Your task to perform on an android device: change the clock style Image 0: 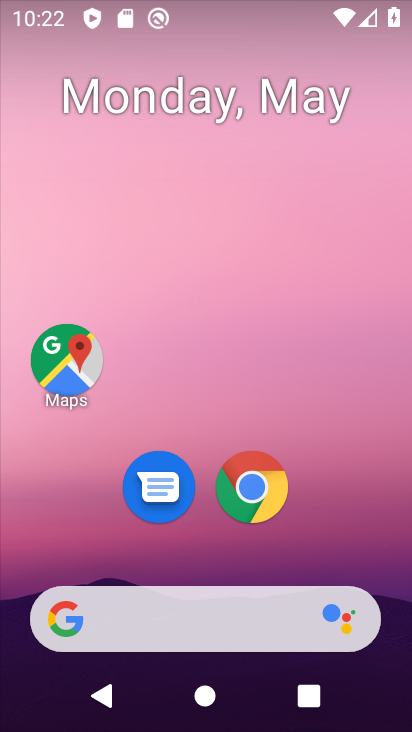
Step 0: drag from (399, 578) to (394, 256)
Your task to perform on an android device: change the clock style Image 1: 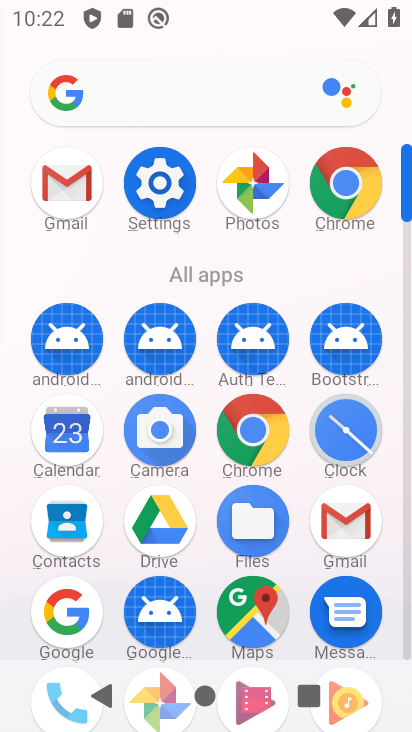
Step 1: click (362, 450)
Your task to perform on an android device: change the clock style Image 2: 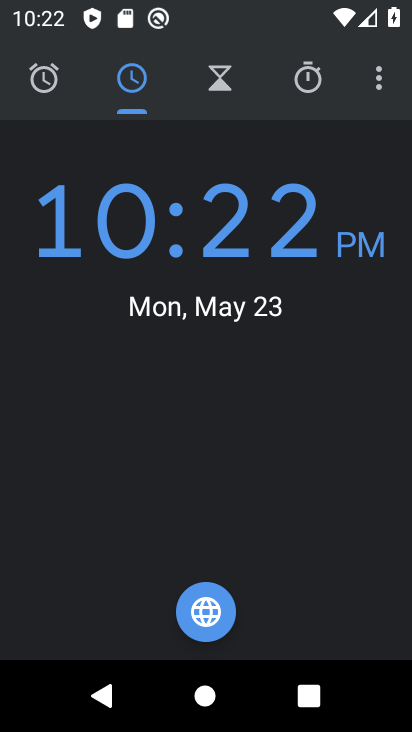
Step 2: click (384, 92)
Your task to perform on an android device: change the clock style Image 3: 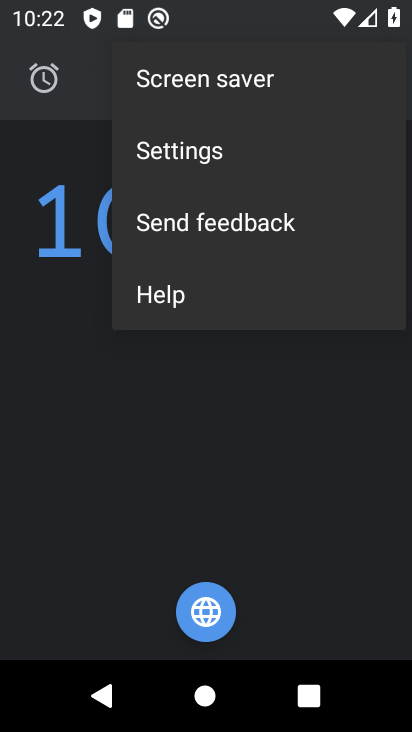
Step 3: click (189, 162)
Your task to perform on an android device: change the clock style Image 4: 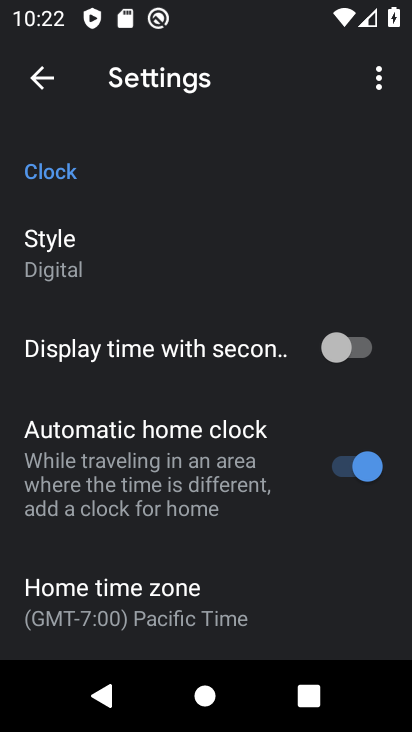
Step 4: drag from (293, 493) to (295, 387)
Your task to perform on an android device: change the clock style Image 5: 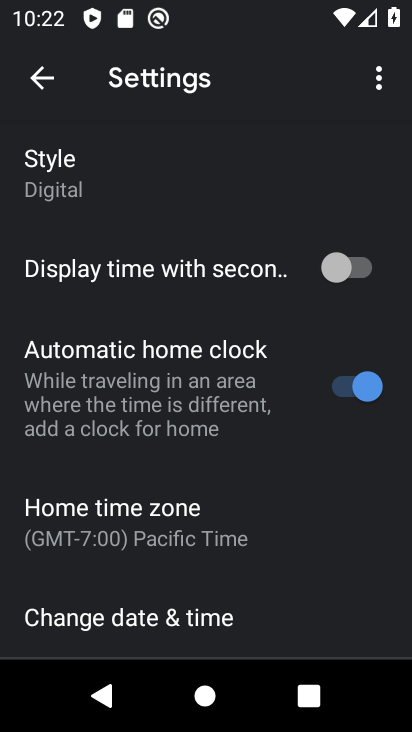
Step 5: drag from (303, 559) to (311, 428)
Your task to perform on an android device: change the clock style Image 6: 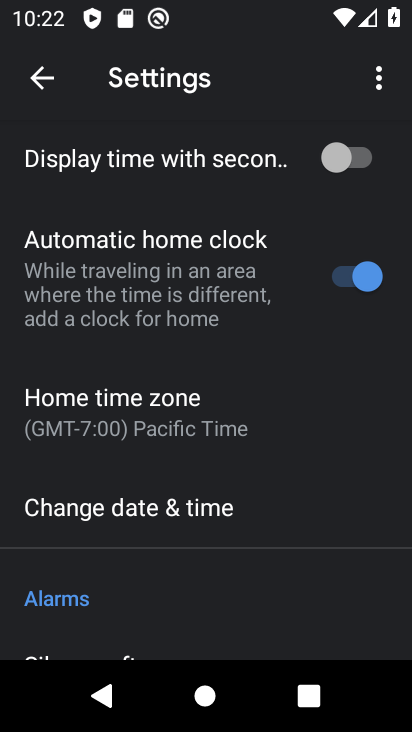
Step 6: drag from (329, 575) to (326, 454)
Your task to perform on an android device: change the clock style Image 7: 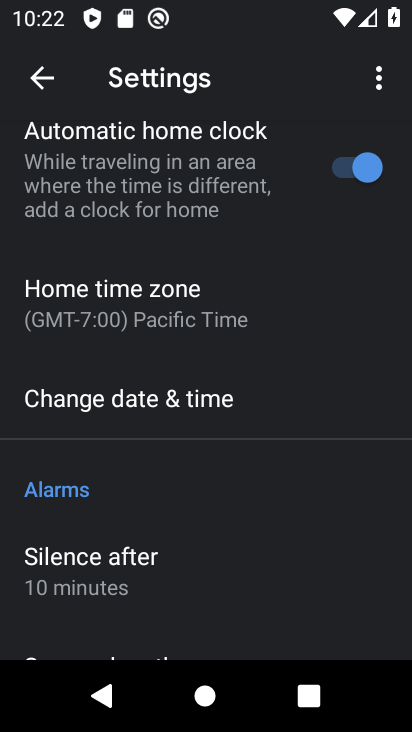
Step 7: drag from (310, 574) to (330, 469)
Your task to perform on an android device: change the clock style Image 8: 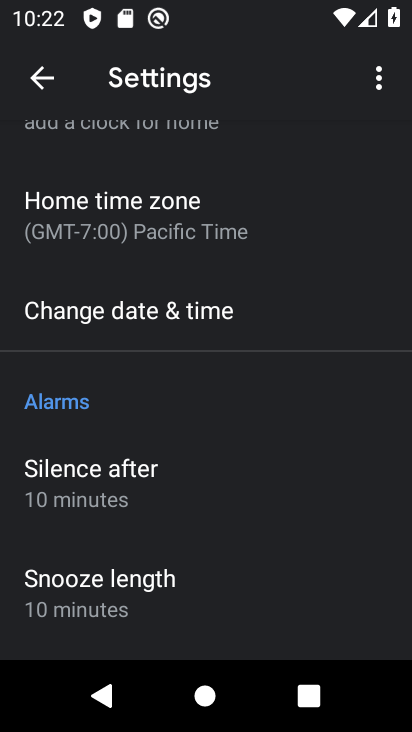
Step 8: drag from (337, 591) to (347, 500)
Your task to perform on an android device: change the clock style Image 9: 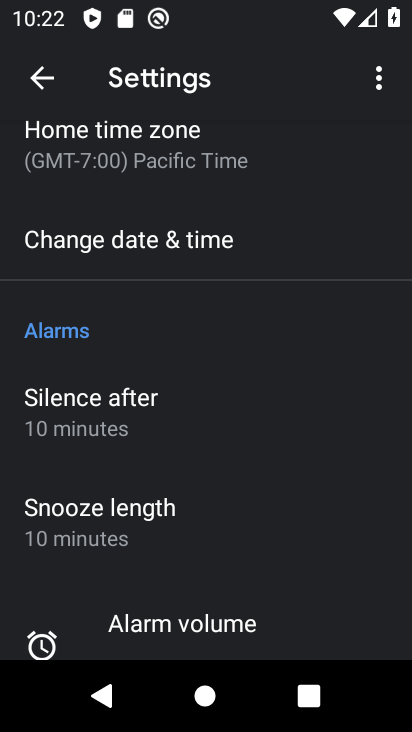
Step 9: drag from (347, 619) to (356, 517)
Your task to perform on an android device: change the clock style Image 10: 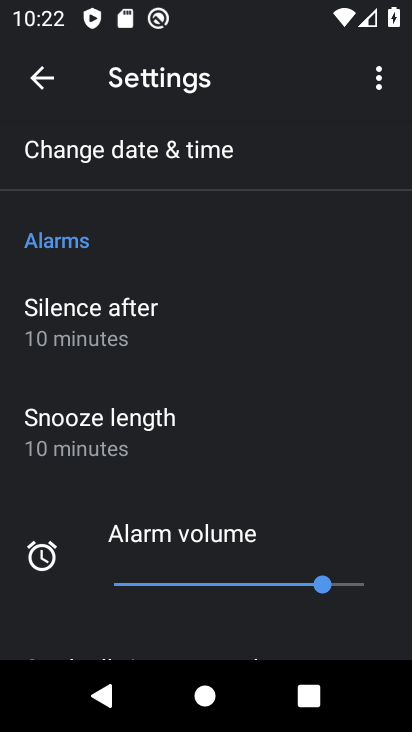
Step 10: drag from (339, 613) to (350, 506)
Your task to perform on an android device: change the clock style Image 11: 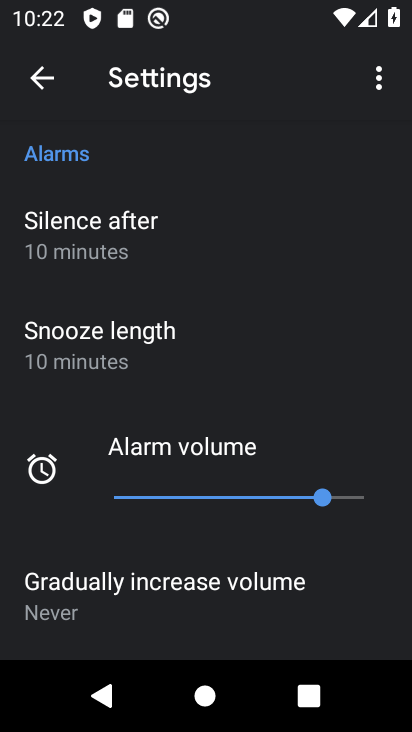
Step 11: drag from (350, 600) to (363, 504)
Your task to perform on an android device: change the clock style Image 12: 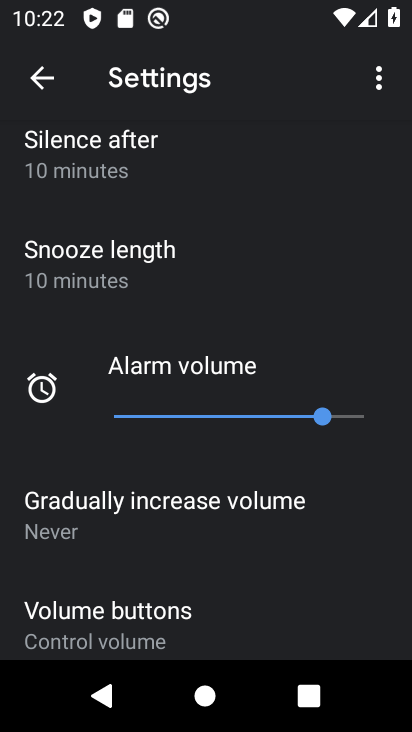
Step 12: drag from (360, 577) to (360, 531)
Your task to perform on an android device: change the clock style Image 13: 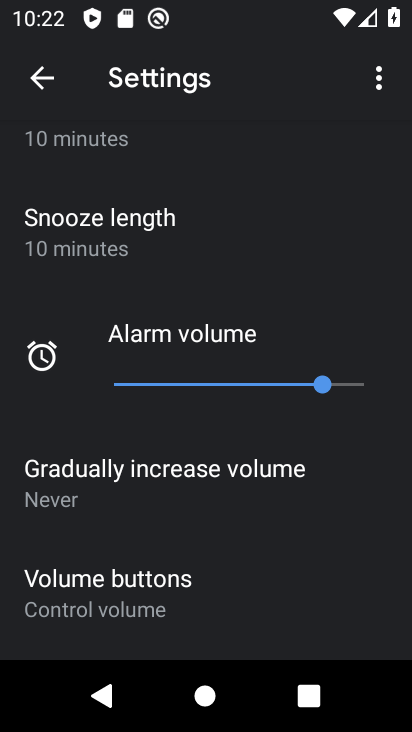
Step 13: drag from (353, 615) to (352, 532)
Your task to perform on an android device: change the clock style Image 14: 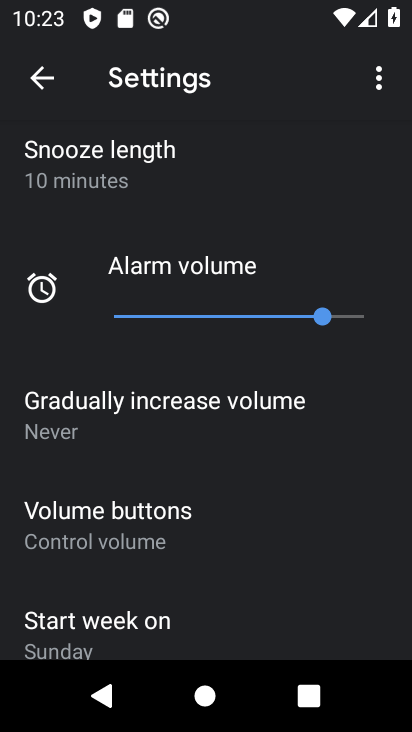
Step 14: drag from (346, 609) to (346, 511)
Your task to perform on an android device: change the clock style Image 15: 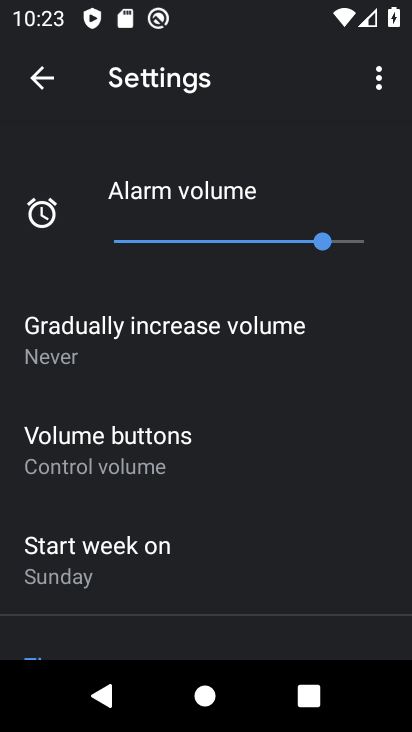
Step 15: drag from (349, 464) to (350, 529)
Your task to perform on an android device: change the clock style Image 16: 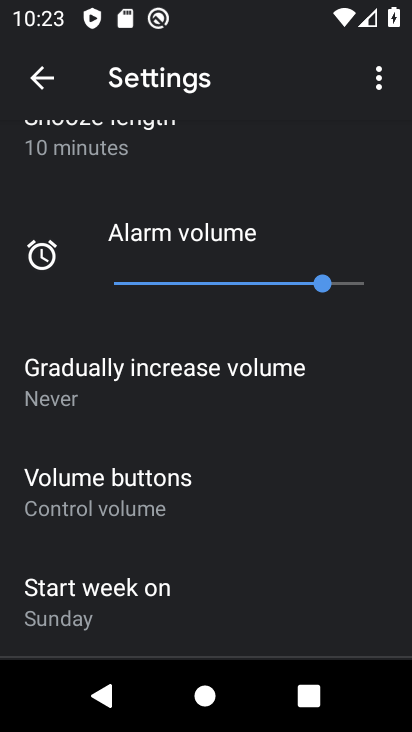
Step 16: drag from (362, 478) to (362, 524)
Your task to perform on an android device: change the clock style Image 17: 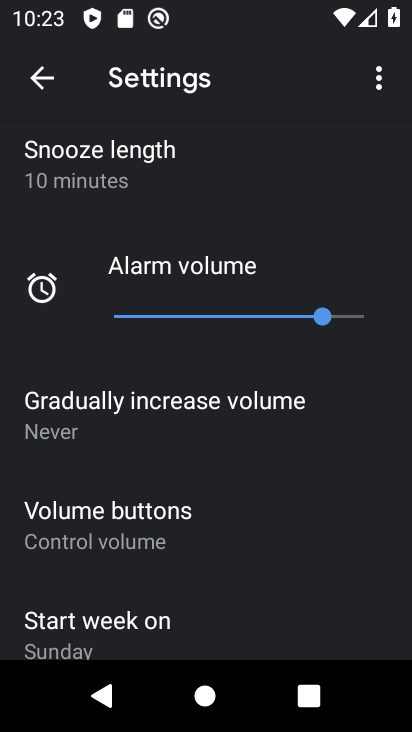
Step 17: drag from (365, 482) to (366, 590)
Your task to perform on an android device: change the clock style Image 18: 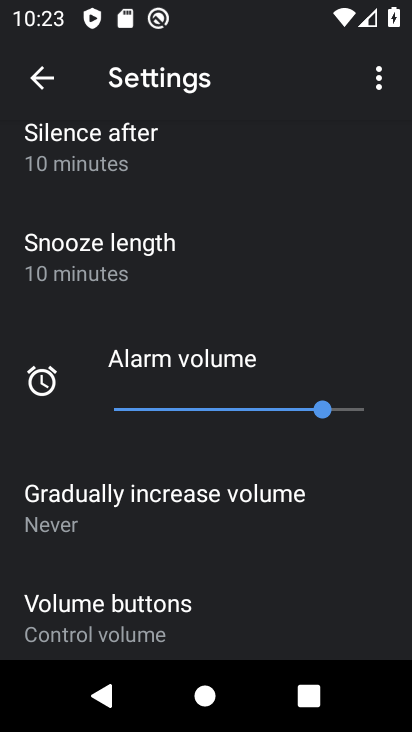
Step 18: drag from (354, 318) to (364, 461)
Your task to perform on an android device: change the clock style Image 19: 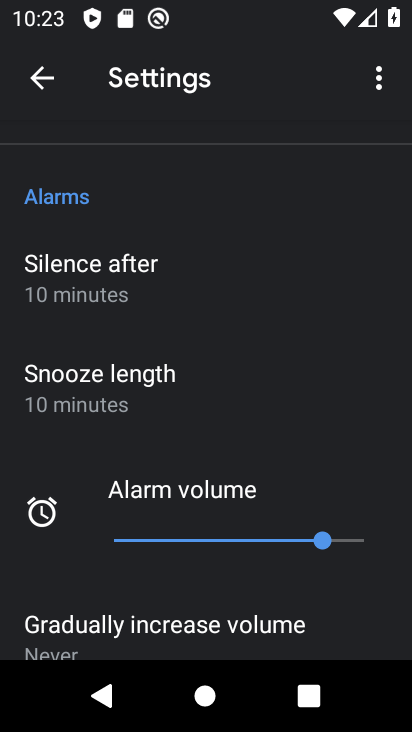
Step 19: drag from (350, 296) to (350, 427)
Your task to perform on an android device: change the clock style Image 20: 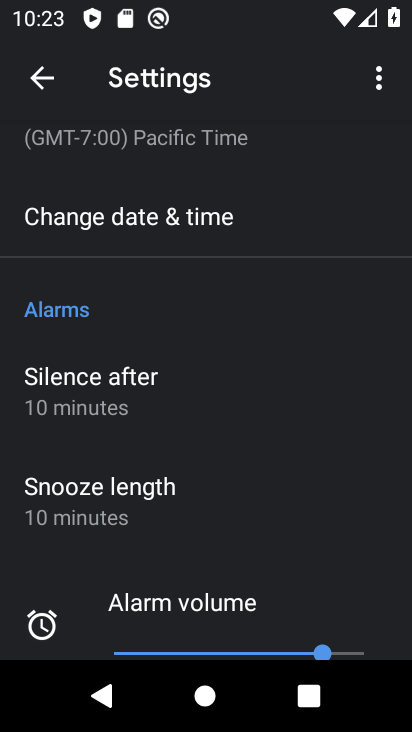
Step 20: drag from (316, 250) to (335, 387)
Your task to perform on an android device: change the clock style Image 21: 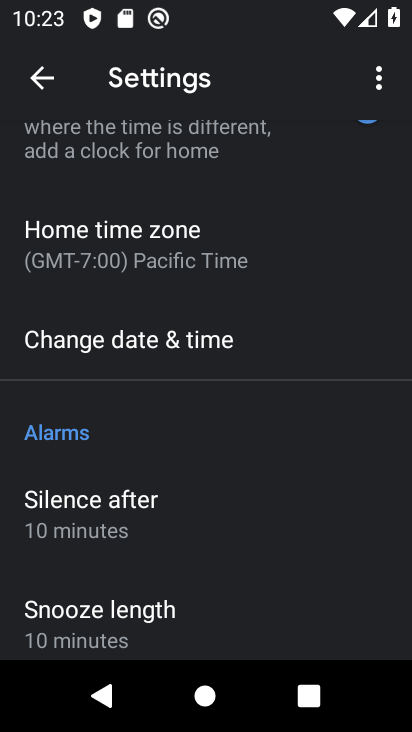
Step 21: drag from (329, 250) to (337, 375)
Your task to perform on an android device: change the clock style Image 22: 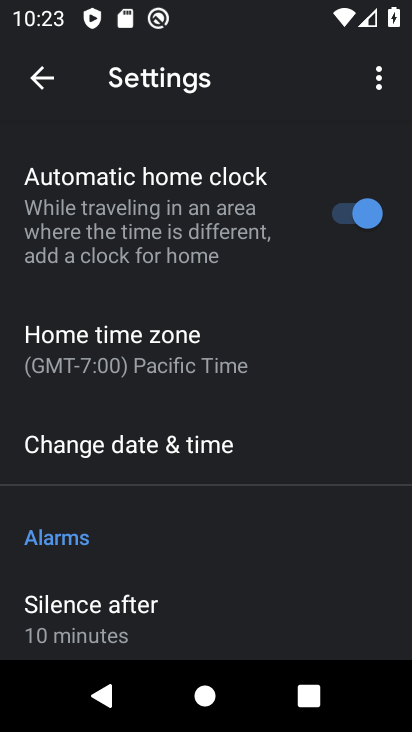
Step 22: drag from (306, 212) to (307, 390)
Your task to perform on an android device: change the clock style Image 23: 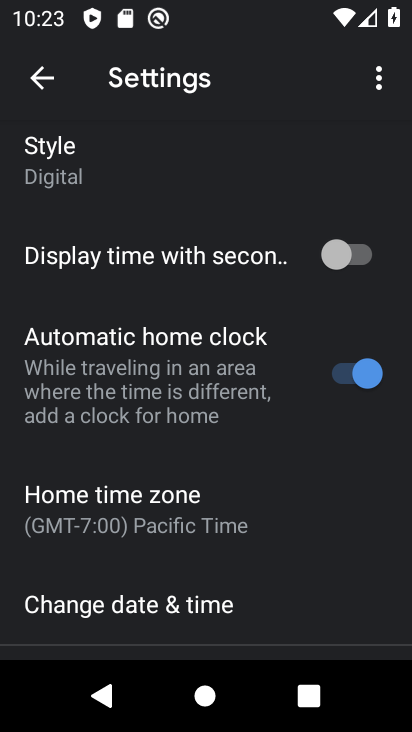
Step 23: click (75, 191)
Your task to perform on an android device: change the clock style Image 24: 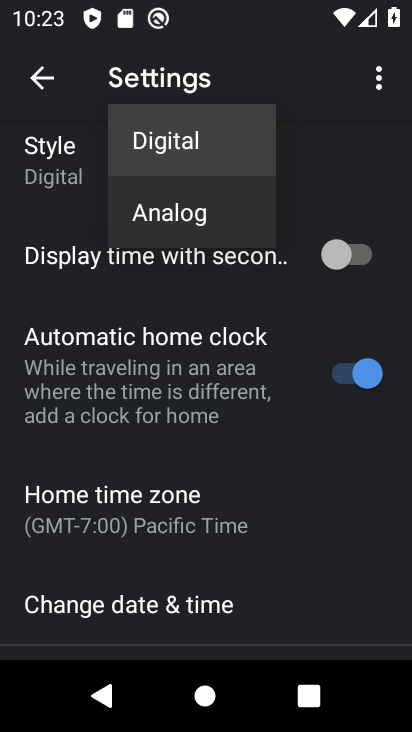
Step 24: click (209, 218)
Your task to perform on an android device: change the clock style Image 25: 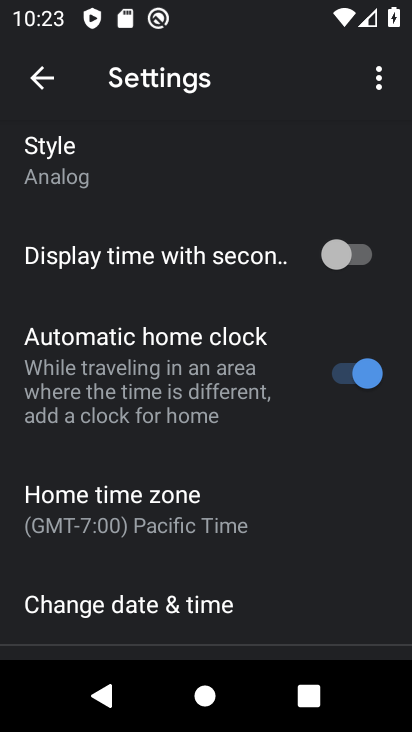
Step 25: task complete